Your task to perform on an android device: Show the shopping cart on ebay.com. Image 0: 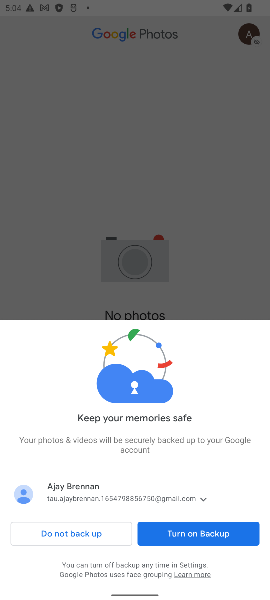
Step 0: press home button
Your task to perform on an android device: Show the shopping cart on ebay.com. Image 1: 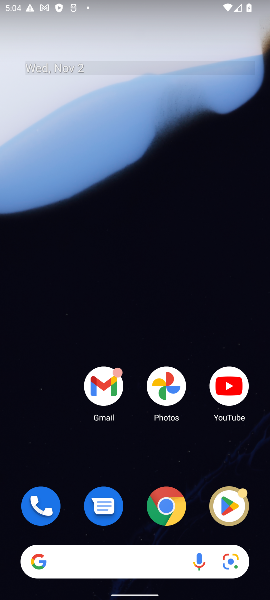
Step 1: click (178, 519)
Your task to perform on an android device: Show the shopping cart on ebay.com. Image 2: 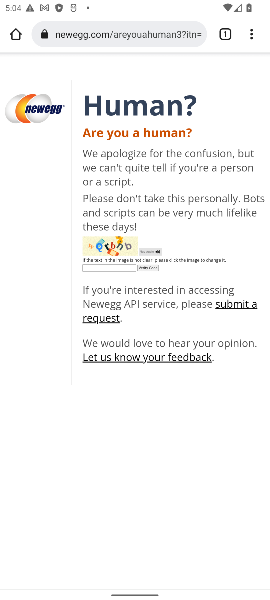
Step 2: click (117, 23)
Your task to perform on an android device: Show the shopping cart on ebay.com. Image 3: 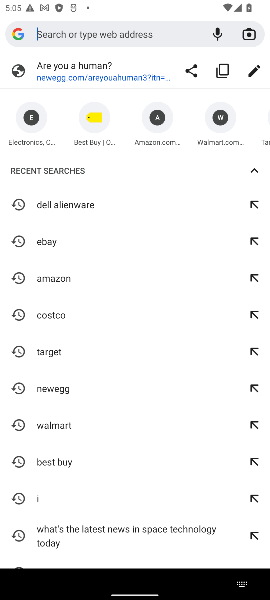
Step 3: type "ebay.com"
Your task to perform on an android device: Show the shopping cart on ebay.com. Image 4: 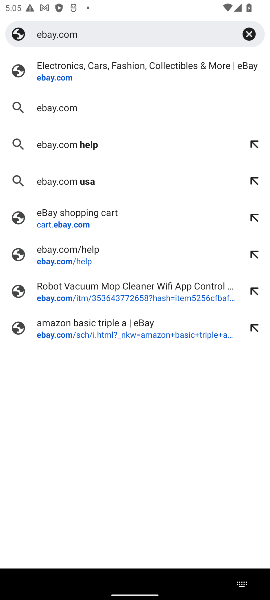
Step 4: click (87, 79)
Your task to perform on an android device: Show the shopping cart on ebay.com. Image 5: 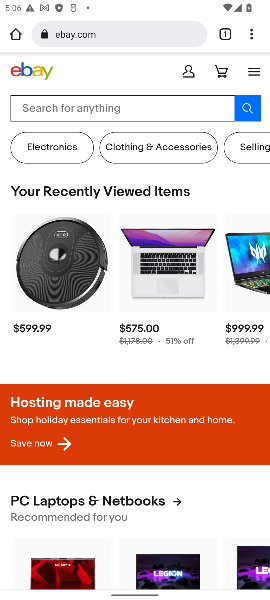
Step 5: click (222, 72)
Your task to perform on an android device: Show the shopping cart on ebay.com. Image 6: 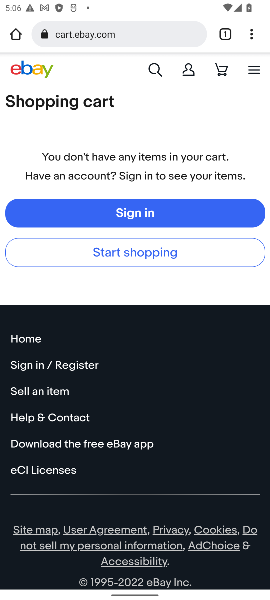
Step 6: task complete